Your task to perform on an android device: Do I have any events this weekend? Image 0: 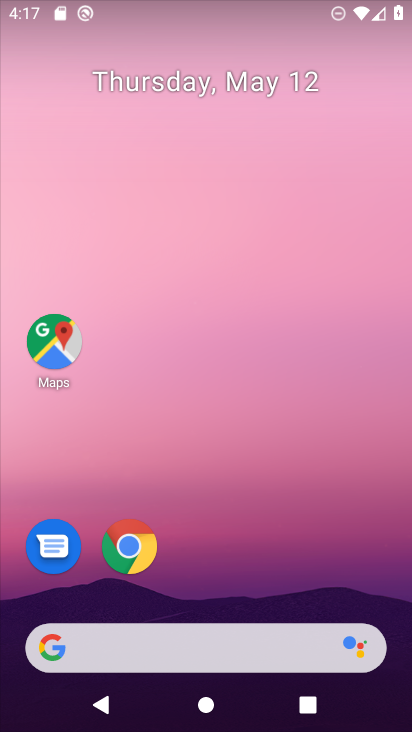
Step 0: drag from (215, 476) to (243, 256)
Your task to perform on an android device: Do I have any events this weekend? Image 1: 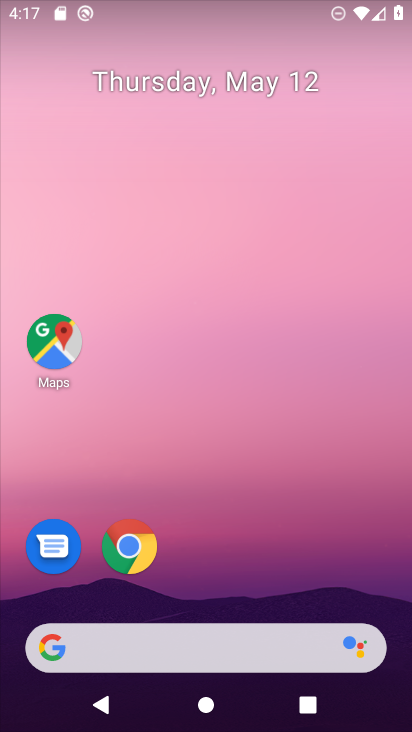
Step 1: drag from (206, 550) to (222, 278)
Your task to perform on an android device: Do I have any events this weekend? Image 2: 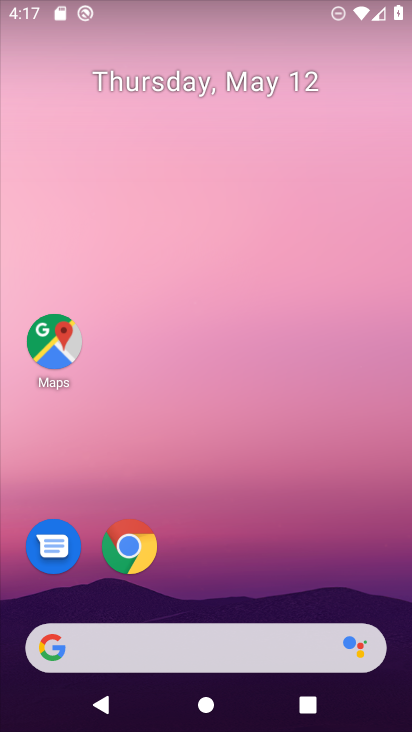
Step 2: drag from (231, 499) to (245, 202)
Your task to perform on an android device: Do I have any events this weekend? Image 3: 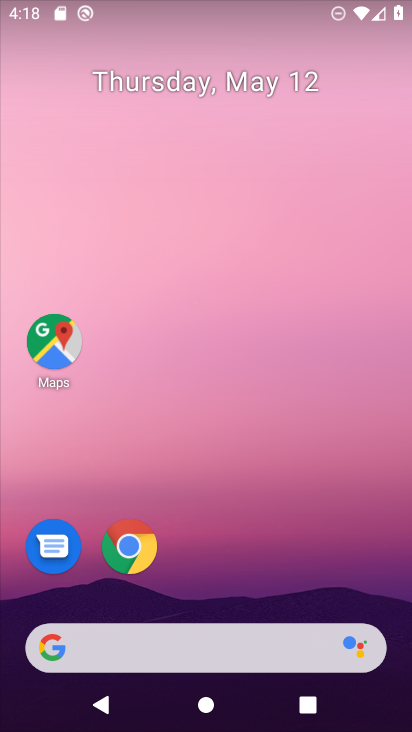
Step 3: drag from (224, 588) to (243, 228)
Your task to perform on an android device: Do I have any events this weekend? Image 4: 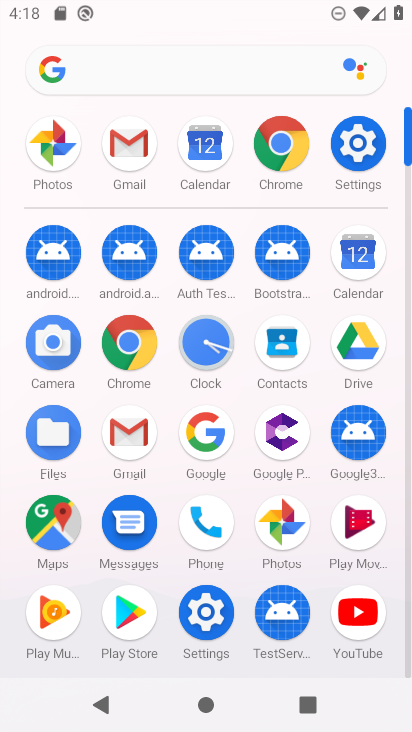
Step 4: click (351, 250)
Your task to perform on an android device: Do I have any events this weekend? Image 5: 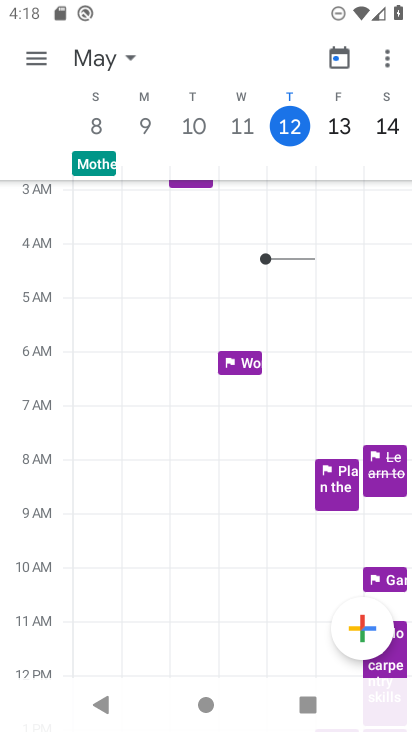
Step 5: click (23, 50)
Your task to perform on an android device: Do I have any events this weekend? Image 6: 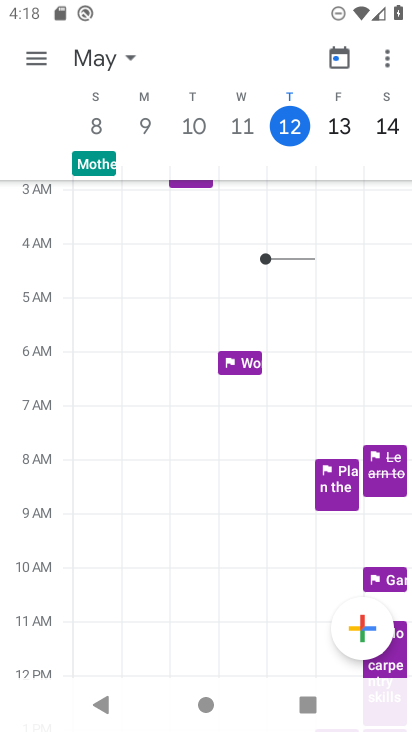
Step 6: click (34, 53)
Your task to perform on an android device: Do I have any events this weekend? Image 7: 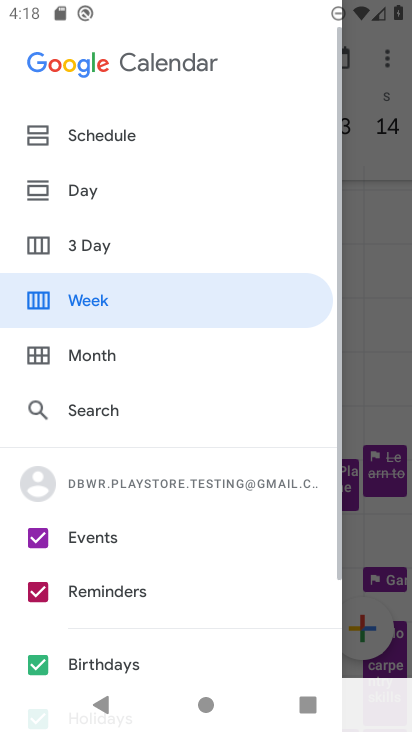
Step 7: click (116, 550)
Your task to perform on an android device: Do I have any events this weekend? Image 8: 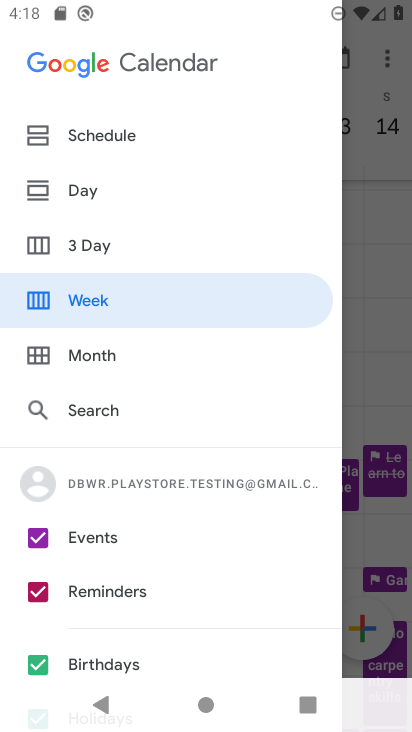
Step 8: click (94, 354)
Your task to perform on an android device: Do I have any events this weekend? Image 9: 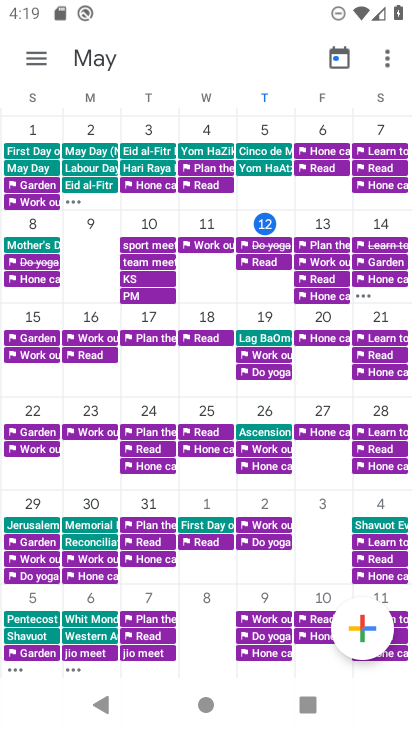
Step 9: task complete